Your task to perform on an android device: Show me recent news Image 0: 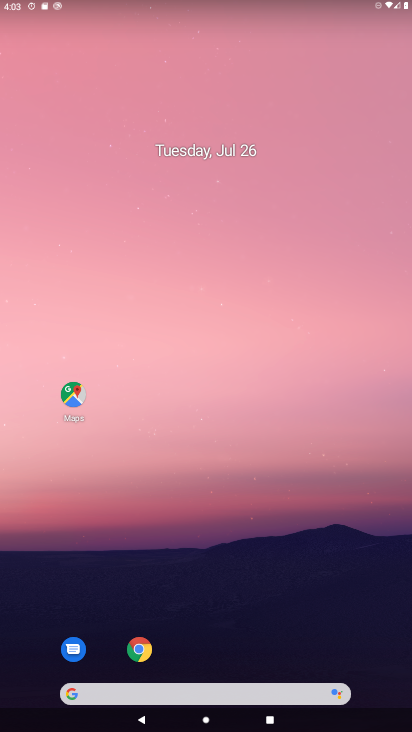
Step 0: drag from (358, 648) to (220, 14)
Your task to perform on an android device: Show me recent news Image 1: 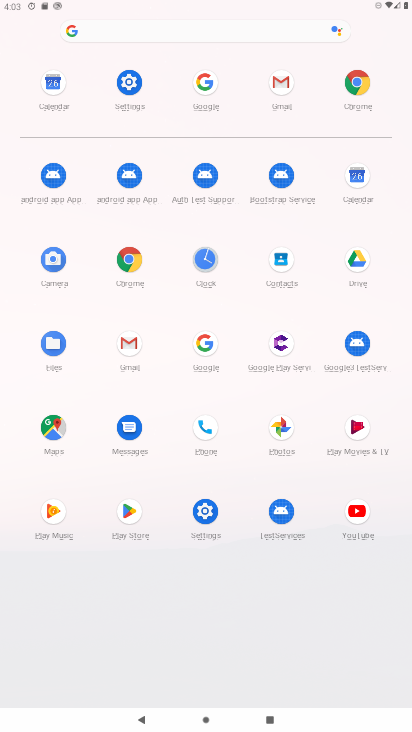
Step 1: click (209, 348)
Your task to perform on an android device: Show me recent news Image 2: 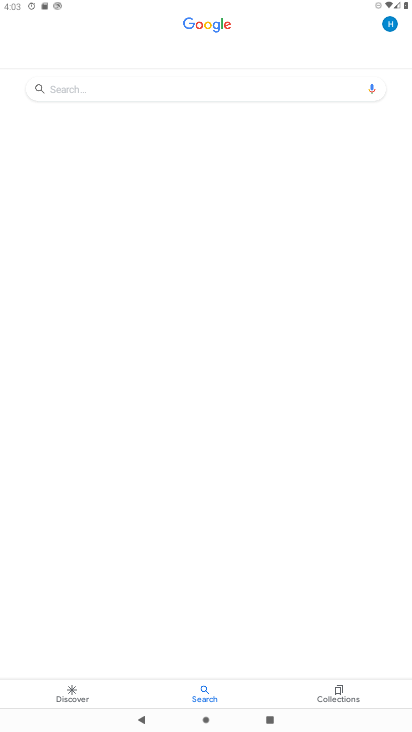
Step 2: click (88, 86)
Your task to perform on an android device: Show me recent news Image 3: 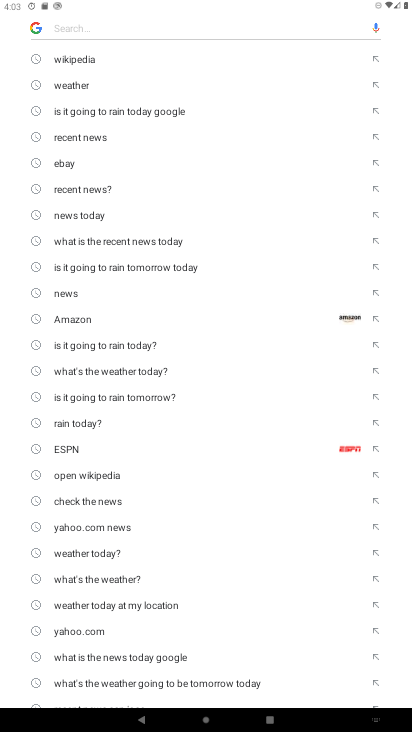
Step 3: type "recent news"
Your task to perform on an android device: Show me recent news Image 4: 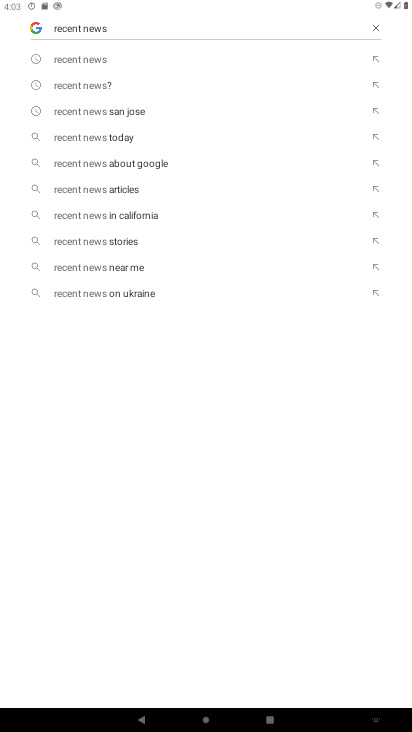
Step 4: click (90, 63)
Your task to perform on an android device: Show me recent news Image 5: 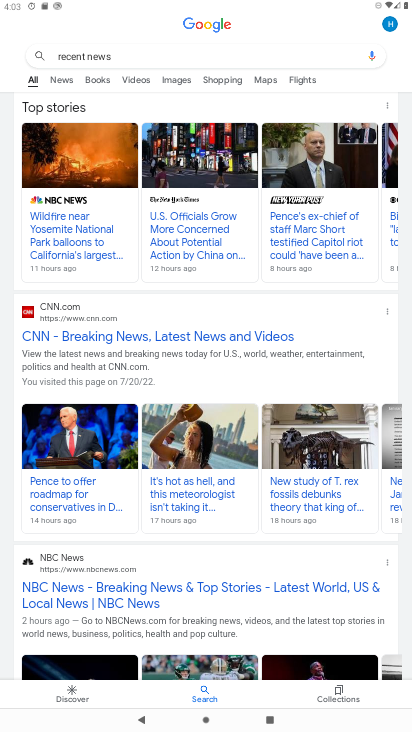
Step 5: task complete